Your task to perform on an android device: Search for the new Nike Air Max 270 on Nike.com Image 0: 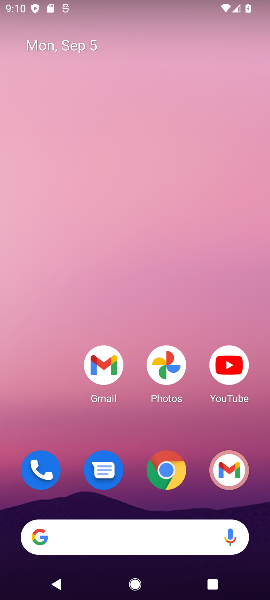
Step 0: click (112, 537)
Your task to perform on an android device: Search for the new Nike Air Max 270 on Nike.com Image 1: 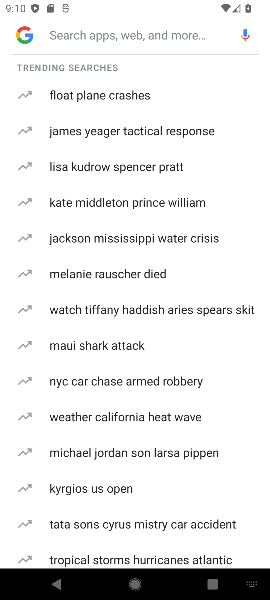
Step 1: type "nike.com"
Your task to perform on an android device: Search for the new Nike Air Max 270 on Nike.com Image 2: 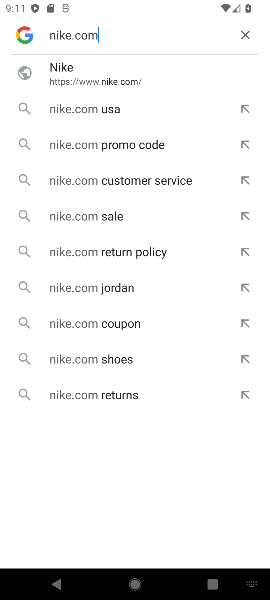
Step 2: click (54, 66)
Your task to perform on an android device: Search for the new Nike Air Max 270 on Nike.com Image 3: 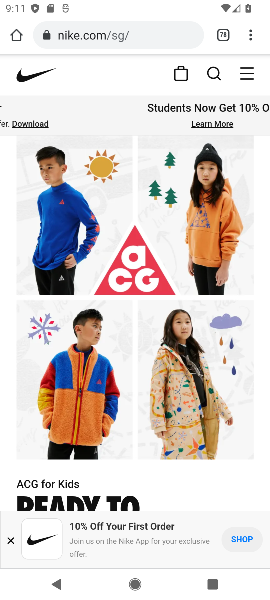
Step 3: click (215, 76)
Your task to perform on an android device: Search for the new Nike Air Max 270 on Nike.com Image 4: 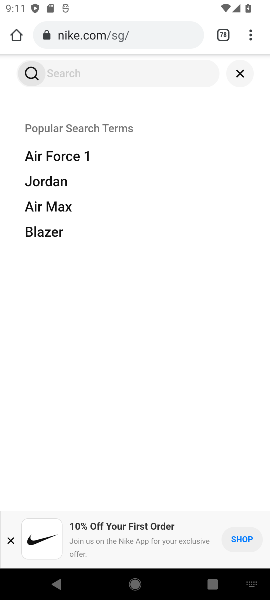
Step 4: type "new nike"
Your task to perform on an android device: Search for the new Nike Air Max 270 on Nike.com Image 5: 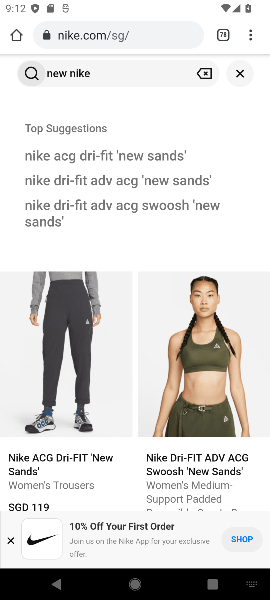
Step 5: type " air max 270"
Your task to perform on an android device: Search for the new Nike Air Max 270 on Nike.com Image 6: 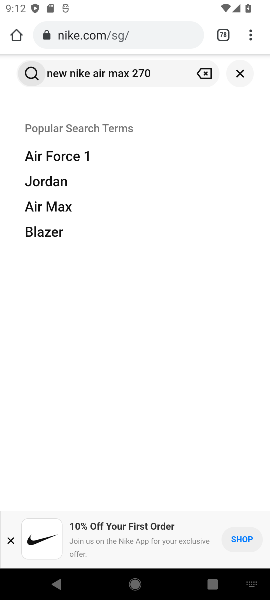
Step 6: click (36, 71)
Your task to perform on an android device: Search for the new Nike Air Max 270 on Nike.com Image 7: 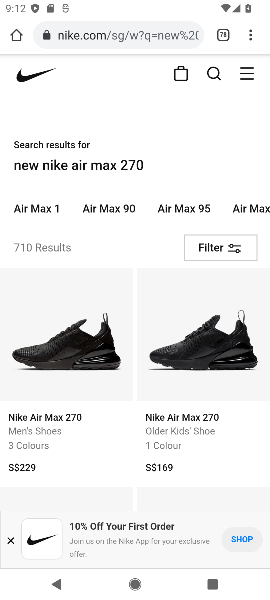
Step 7: task complete